Your task to perform on an android device: change the clock display to show seconds Image 0: 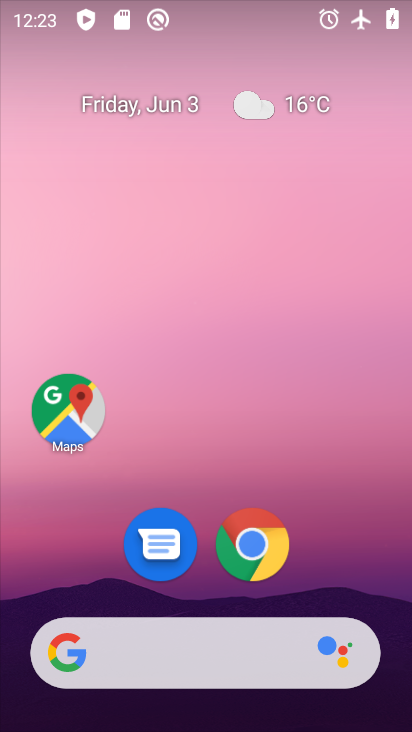
Step 0: drag from (371, 588) to (353, 82)
Your task to perform on an android device: change the clock display to show seconds Image 1: 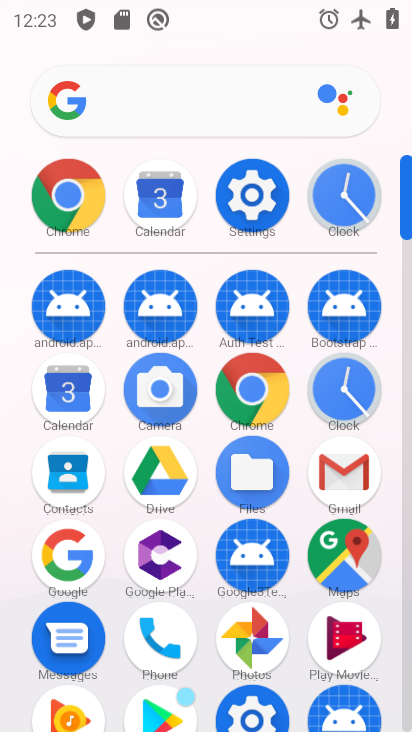
Step 1: click (349, 395)
Your task to perform on an android device: change the clock display to show seconds Image 2: 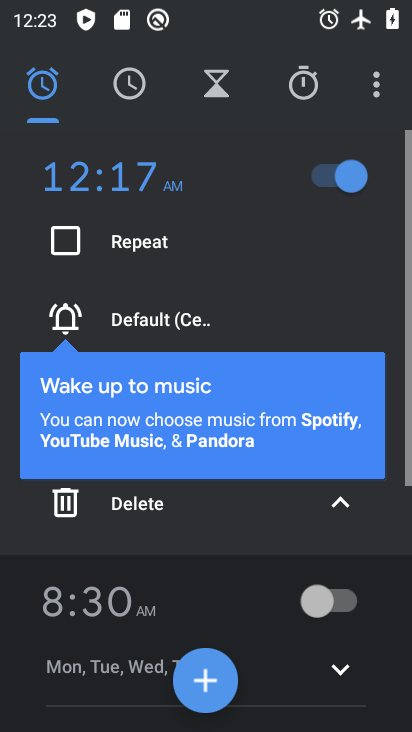
Step 2: click (379, 95)
Your task to perform on an android device: change the clock display to show seconds Image 3: 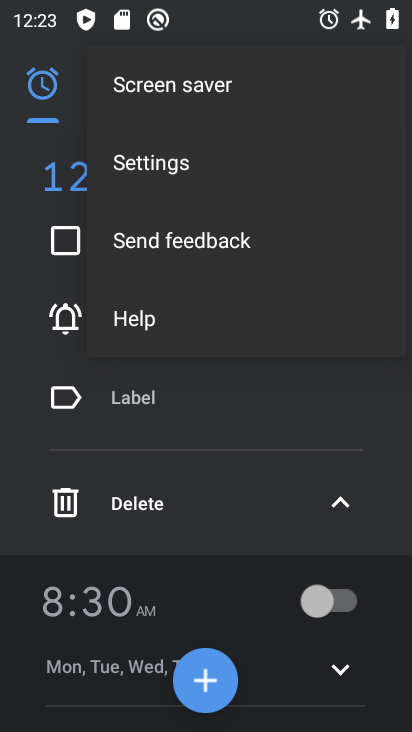
Step 3: click (325, 164)
Your task to perform on an android device: change the clock display to show seconds Image 4: 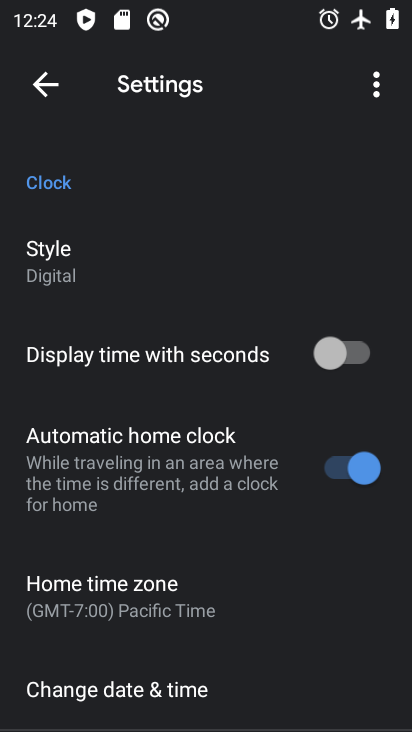
Step 4: click (358, 350)
Your task to perform on an android device: change the clock display to show seconds Image 5: 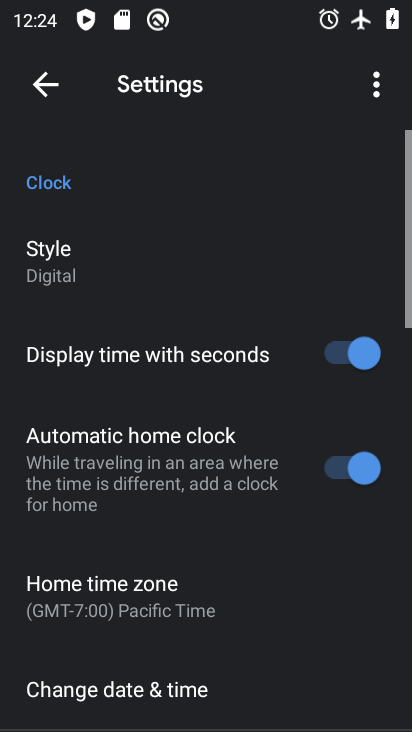
Step 5: task complete